Your task to perform on an android device: move a message to another label in the gmail app Image 0: 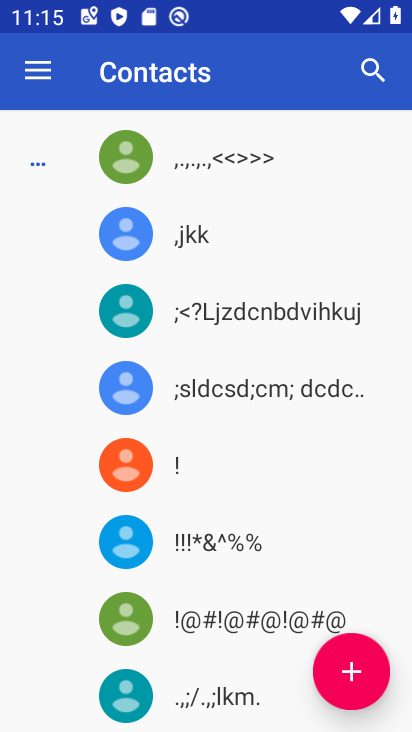
Step 0: press home button
Your task to perform on an android device: move a message to another label in the gmail app Image 1: 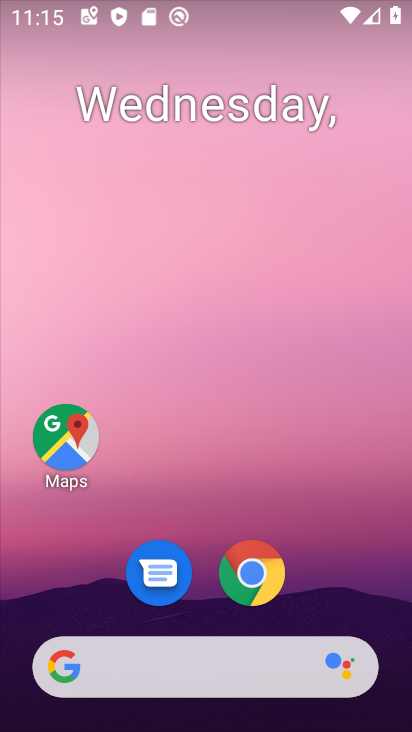
Step 1: drag from (252, 641) to (247, 263)
Your task to perform on an android device: move a message to another label in the gmail app Image 2: 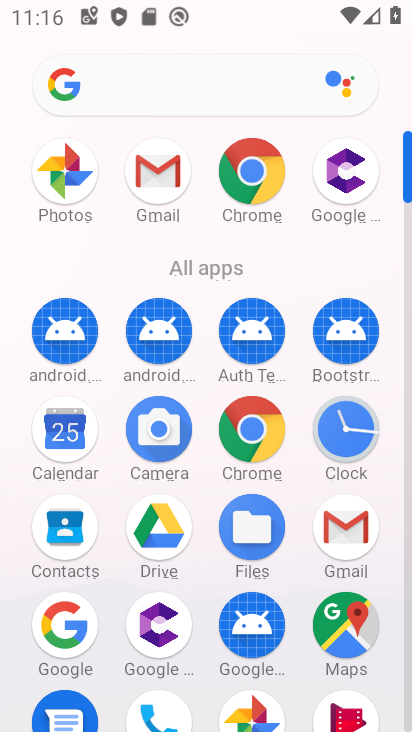
Step 2: click (165, 176)
Your task to perform on an android device: move a message to another label in the gmail app Image 3: 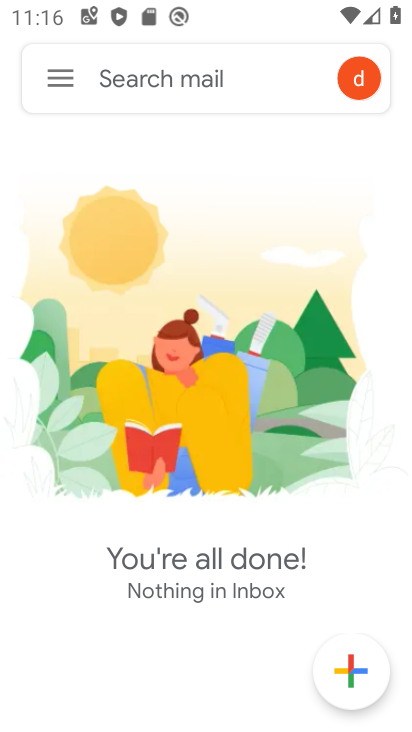
Step 3: task complete